Your task to perform on an android device: What is the speed of a jet? Image 0: 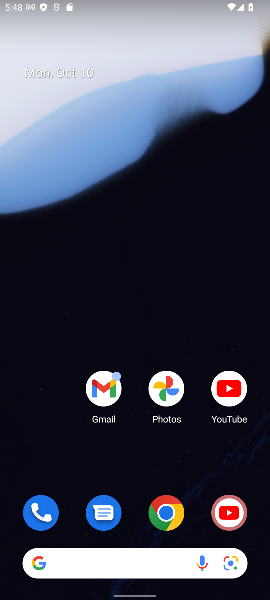
Step 0: click (181, 559)
Your task to perform on an android device: What is the speed of a jet? Image 1: 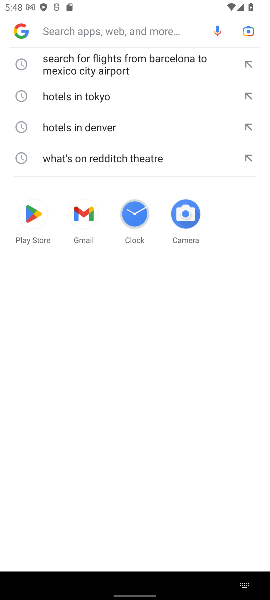
Step 1: type ""
Your task to perform on an android device: What is the speed of a jet? Image 2: 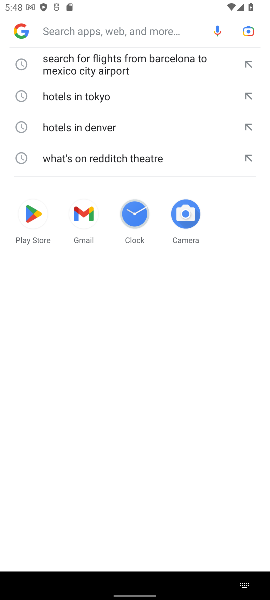
Step 2: type ""
Your task to perform on an android device: What is the speed of a jet? Image 3: 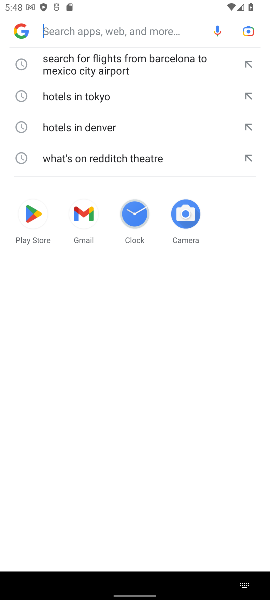
Step 3: click (100, 78)
Your task to perform on an android device: What is the speed of a jet? Image 4: 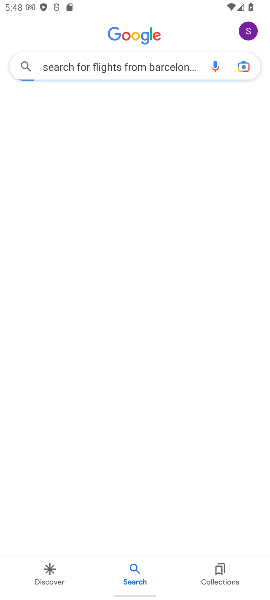
Step 4: task complete